Your task to perform on an android device: Open internet settings Image 0: 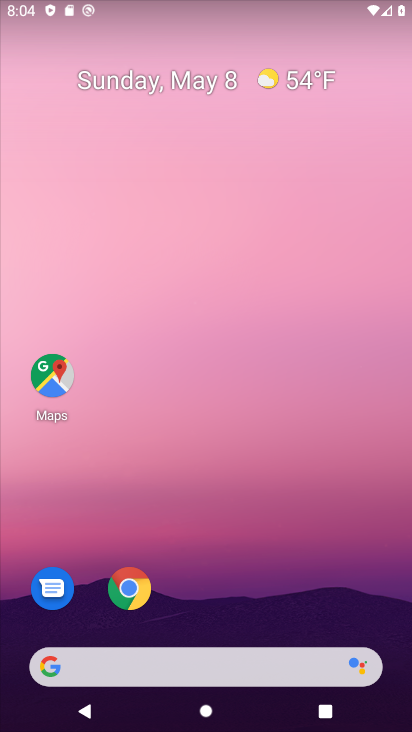
Step 0: drag from (75, 589) to (255, 247)
Your task to perform on an android device: Open internet settings Image 1: 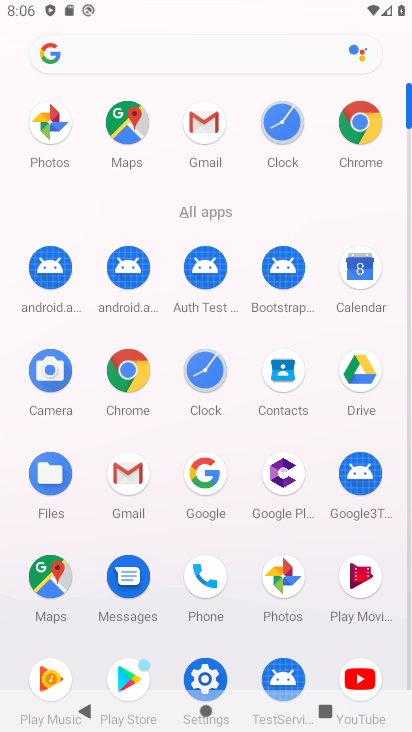
Step 1: click (203, 665)
Your task to perform on an android device: Open internet settings Image 2: 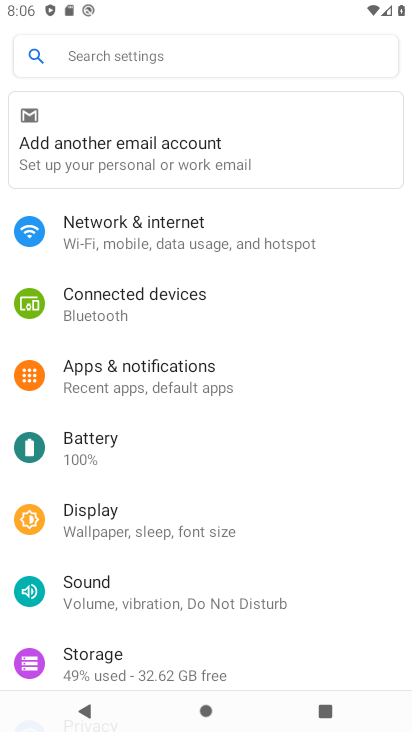
Step 2: click (164, 241)
Your task to perform on an android device: Open internet settings Image 3: 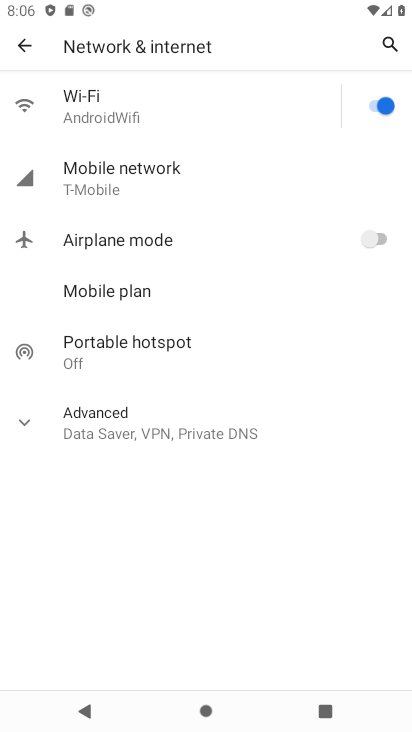
Step 3: click (175, 174)
Your task to perform on an android device: Open internet settings Image 4: 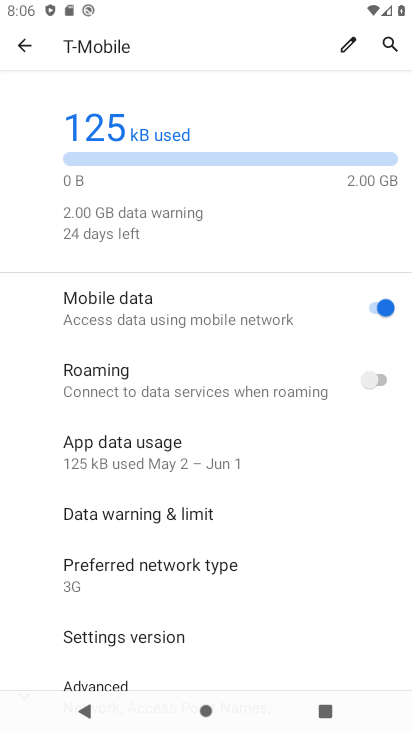
Step 4: task complete